Your task to perform on an android device: toggle sleep mode Image 0: 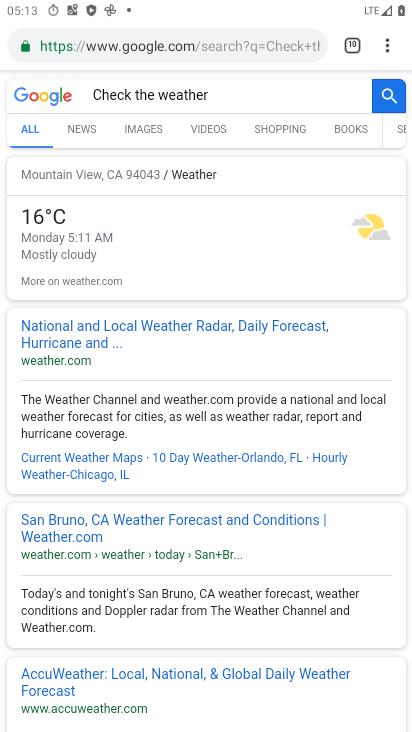
Step 0: press home button
Your task to perform on an android device: toggle sleep mode Image 1: 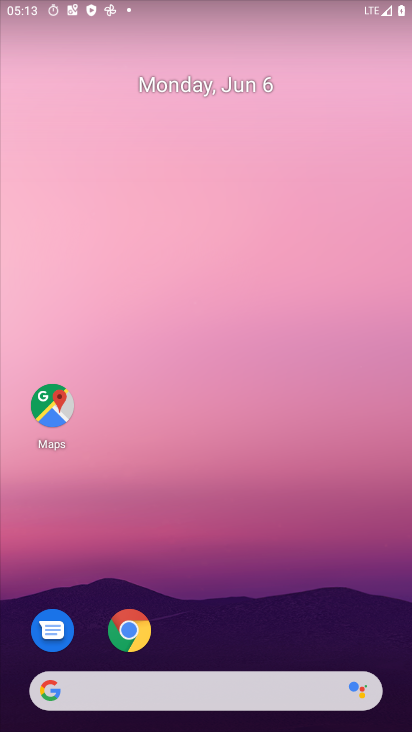
Step 1: drag from (217, 608) to (251, 0)
Your task to perform on an android device: toggle sleep mode Image 2: 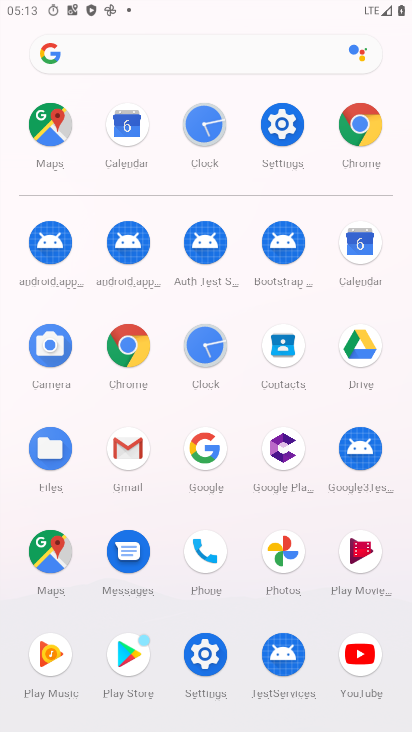
Step 2: click (282, 127)
Your task to perform on an android device: toggle sleep mode Image 3: 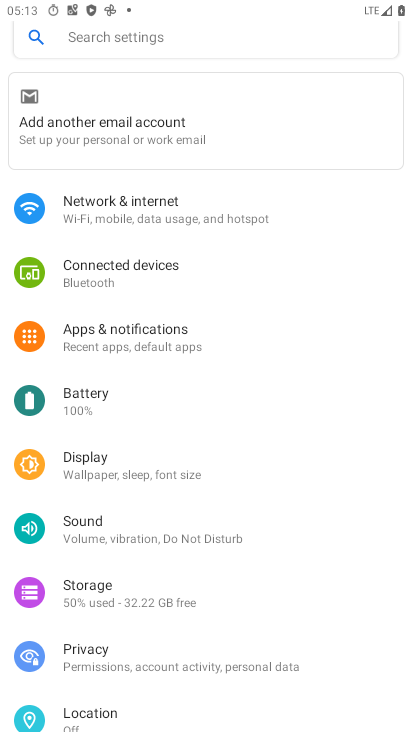
Step 3: click (104, 466)
Your task to perform on an android device: toggle sleep mode Image 4: 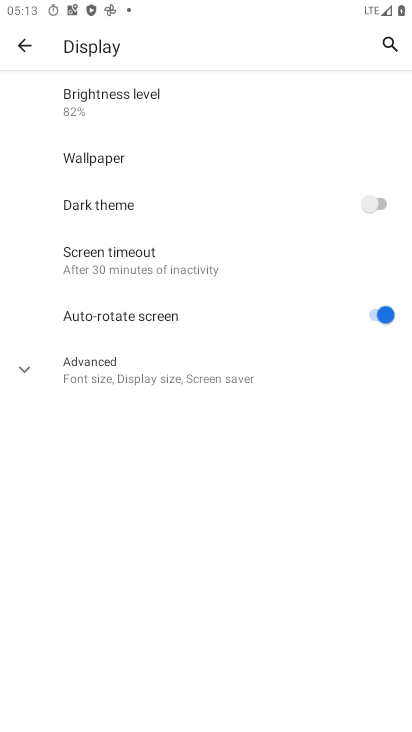
Step 4: click (118, 269)
Your task to perform on an android device: toggle sleep mode Image 5: 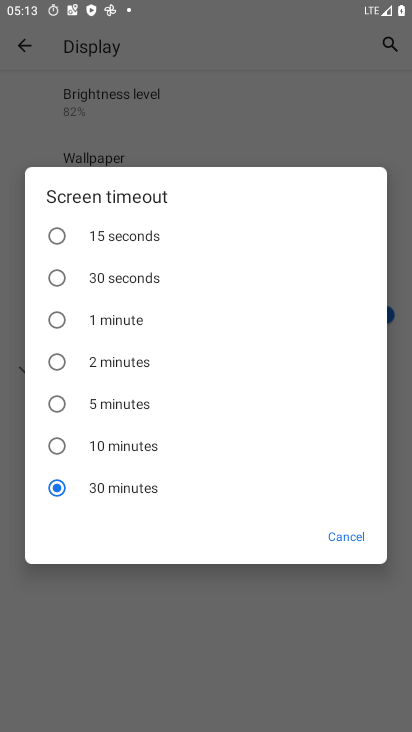
Step 5: click (96, 447)
Your task to perform on an android device: toggle sleep mode Image 6: 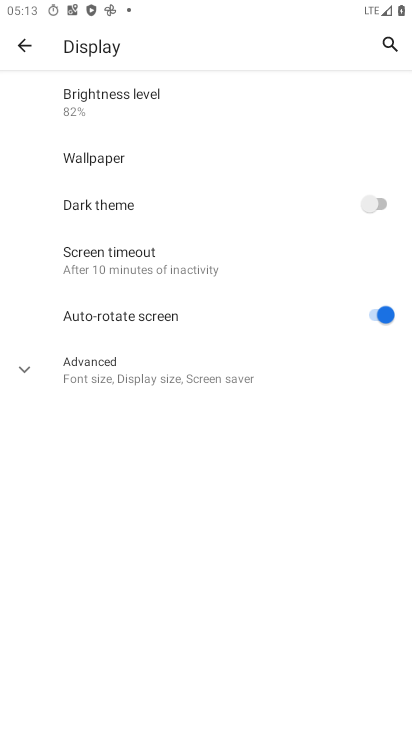
Step 6: task complete